Your task to perform on an android device: turn on javascript in the chrome app Image 0: 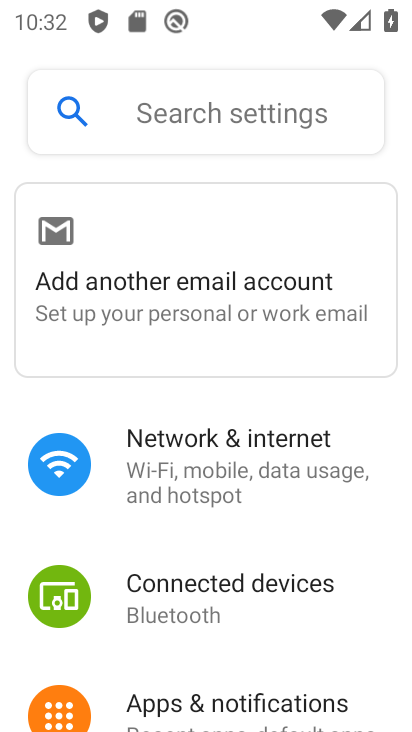
Step 0: press back button
Your task to perform on an android device: turn on javascript in the chrome app Image 1: 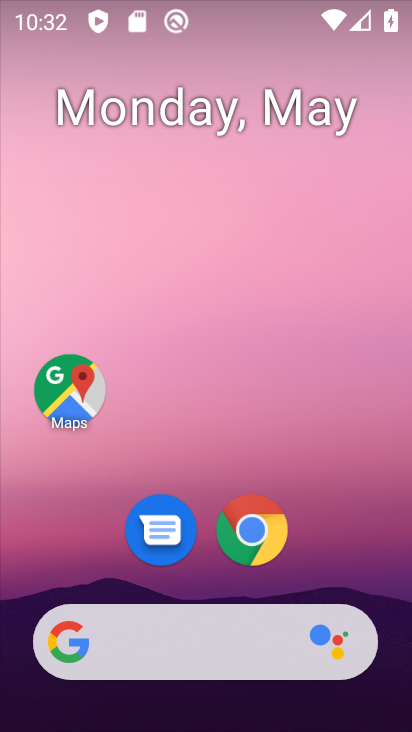
Step 1: click (253, 534)
Your task to perform on an android device: turn on javascript in the chrome app Image 2: 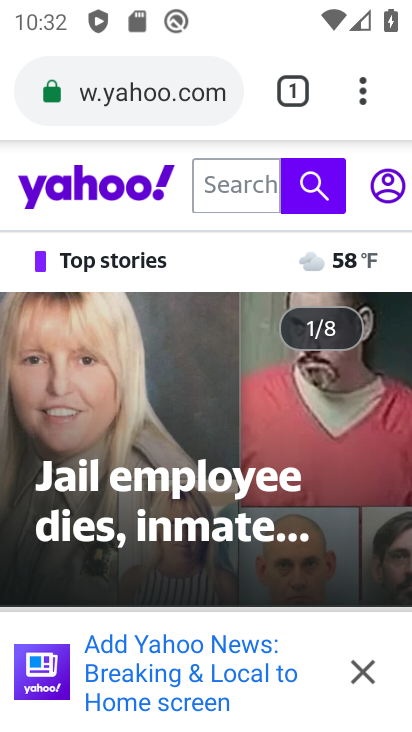
Step 2: click (365, 90)
Your task to perform on an android device: turn on javascript in the chrome app Image 3: 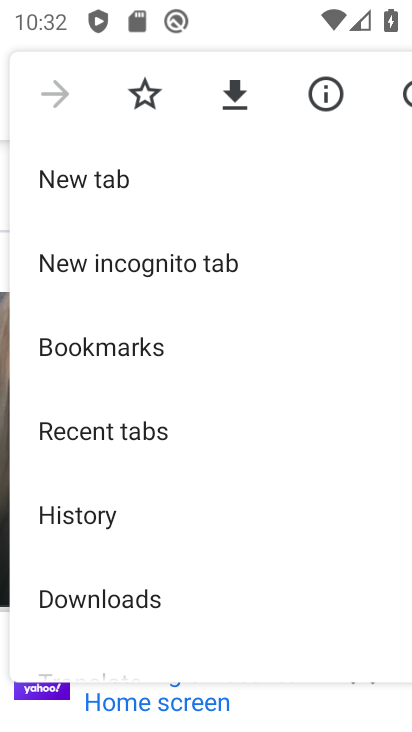
Step 3: drag from (157, 467) to (189, 339)
Your task to perform on an android device: turn on javascript in the chrome app Image 4: 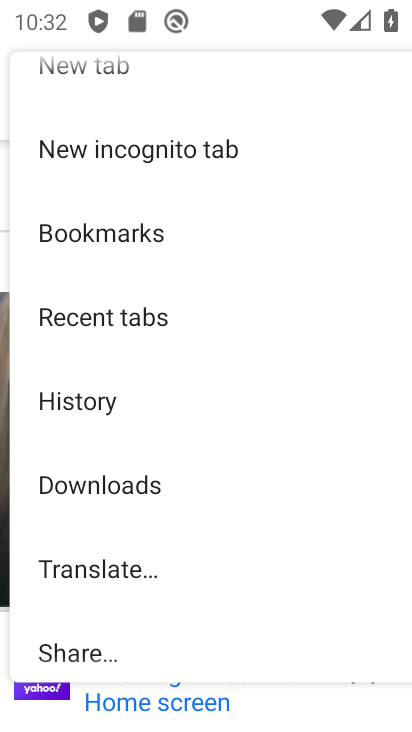
Step 4: drag from (155, 433) to (195, 311)
Your task to perform on an android device: turn on javascript in the chrome app Image 5: 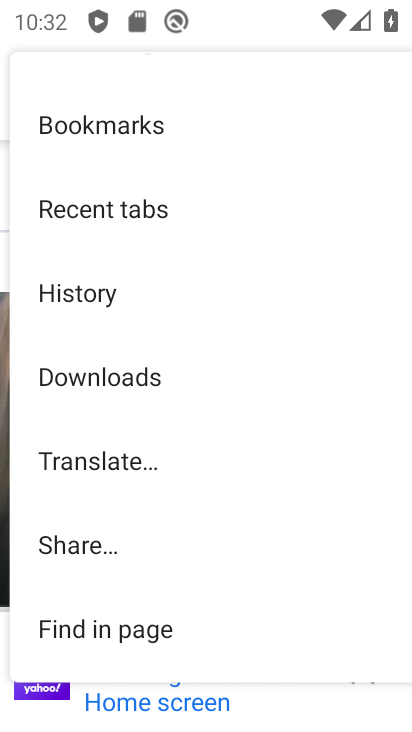
Step 5: drag from (136, 499) to (191, 359)
Your task to perform on an android device: turn on javascript in the chrome app Image 6: 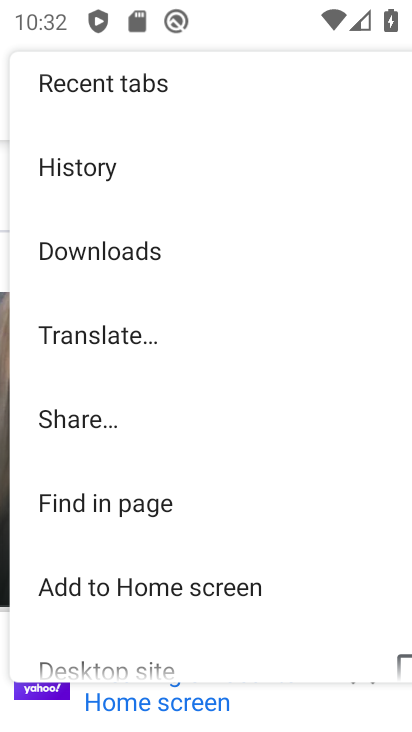
Step 6: drag from (147, 530) to (253, 323)
Your task to perform on an android device: turn on javascript in the chrome app Image 7: 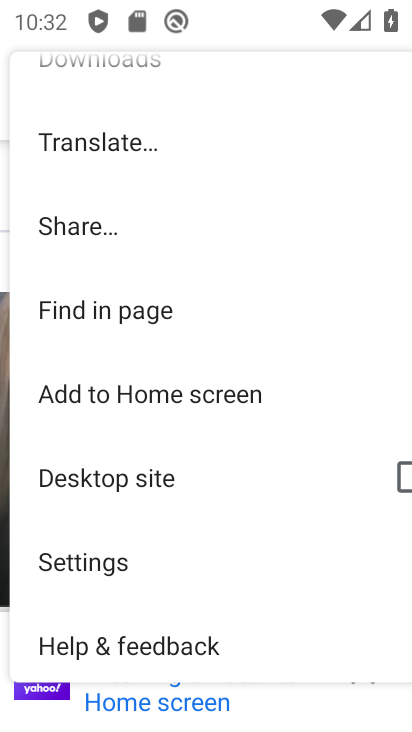
Step 7: click (106, 560)
Your task to perform on an android device: turn on javascript in the chrome app Image 8: 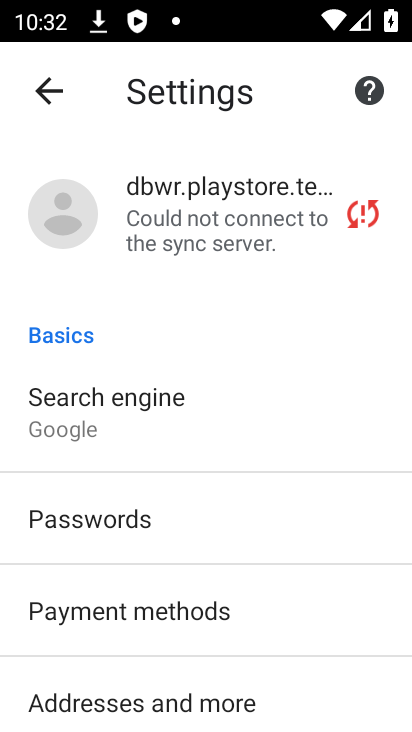
Step 8: drag from (190, 529) to (248, 374)
Your task to perform on an android device: turn on javascript in the chrome app Image 9: 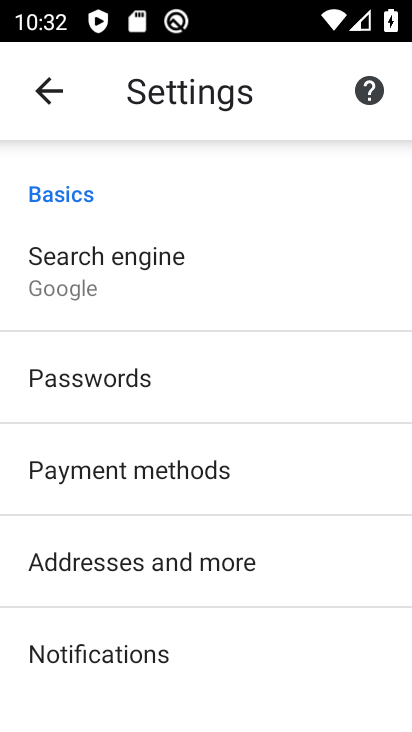
Step 9: drag from (181, 619) to (225, 302)
Your task to perform on an android device: turn on javascript in the chrome app Image 10: 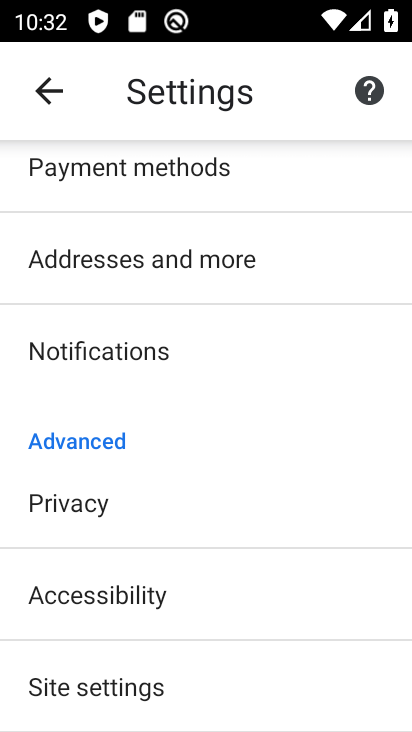
Step 10: drag from (185, 622) to (291, 427)
Your task to perform on an android device: turn on javascript in the chrome app Image 11: 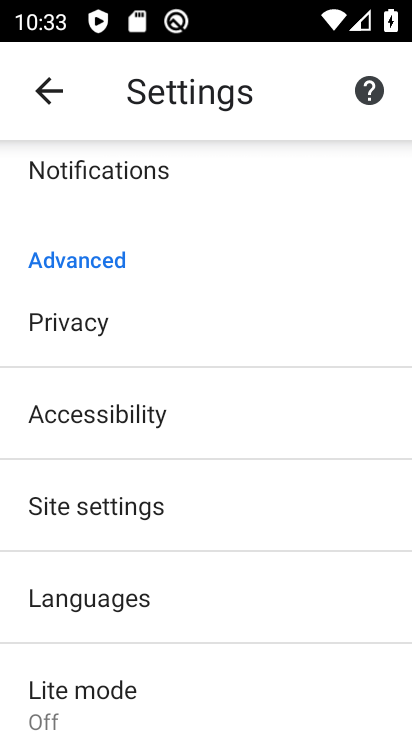
Step 11: click (107, 499)
Your task to perform on an android device: turn on javascript in the chrome app Image 12: 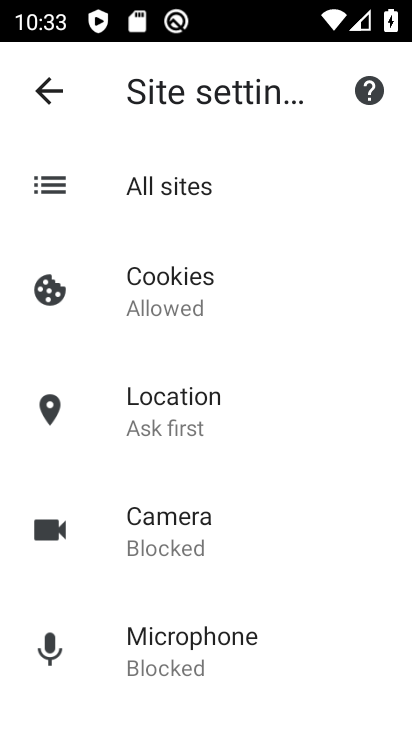
Step 12: drag from (229, 562) to (287, 416)
Your task to perform on an android device: turn on javascript in the chrome app Image 13: 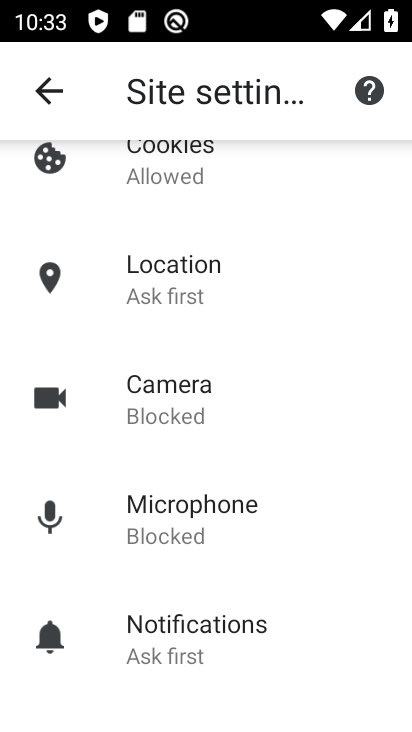
Step 13: drag from (237, 565) to (273, 399)
Your task to perform on an android device: turn on javascript in the chrome app Image 14: 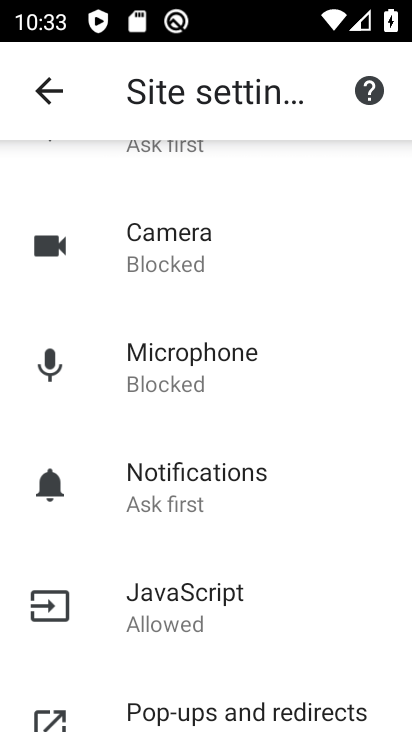
Step 14: click (175, 593)
Your task to perform on an android device: turn on javascript in the chrome app Image 15: 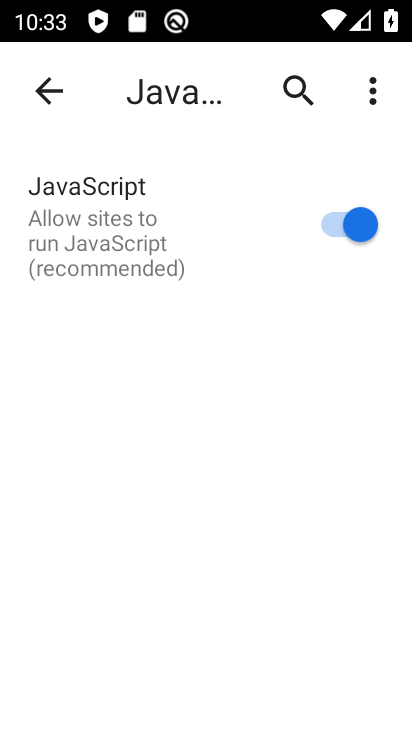
Step 15: task complete